Your task to perform on an android device: Find coffee shops on Maps Image 0: 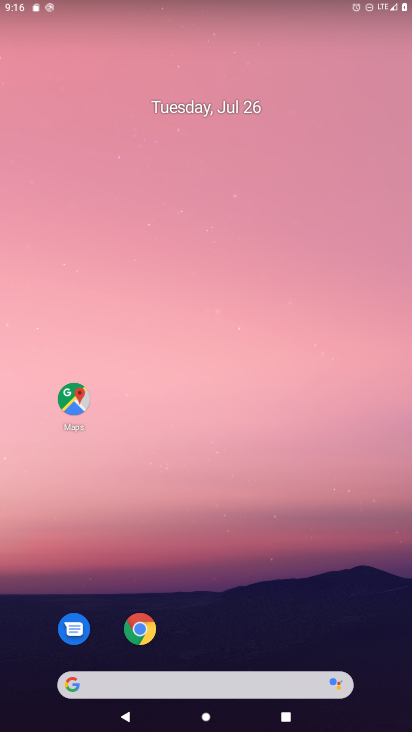
Step 0: drag from (216, 647) to (190, 162)
Your task to perform on an android device: Find coffee shops on Maps Image 1: 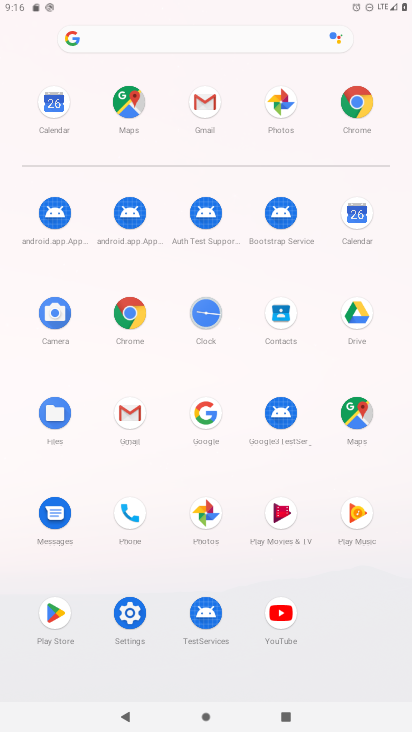
Step 1: click (355, 413)
Your task to perform on an android device: Find coffee shops on Maps Image 2: 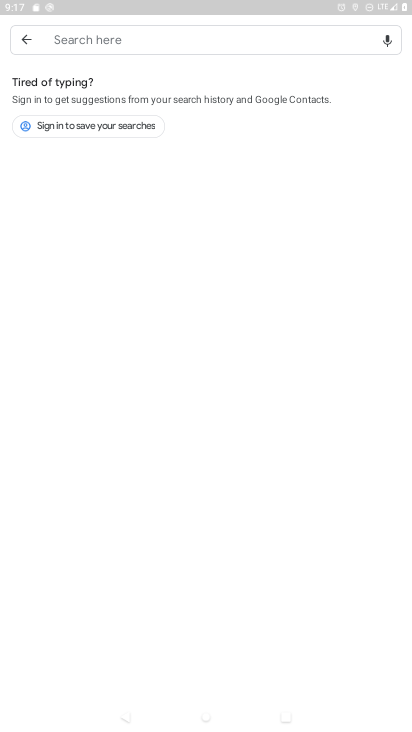
Step 2: click (75, 44)
Your task to perform on an android device: Find coffee shops on Maps Image 3: 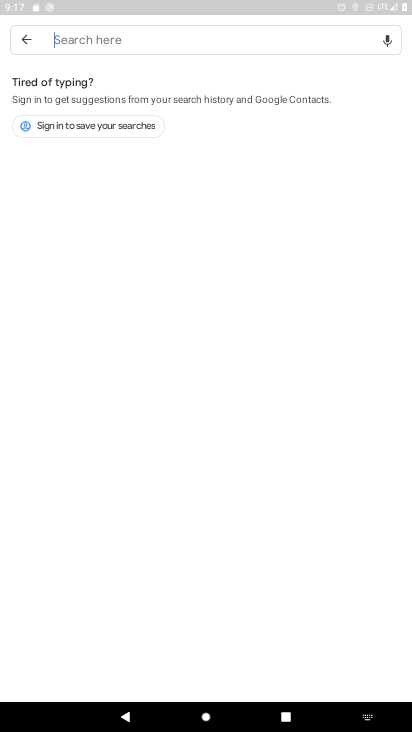
Step 3: type "coffee shops"
Your task to perform on an android device: Find coffee shops on Maps Image 4: 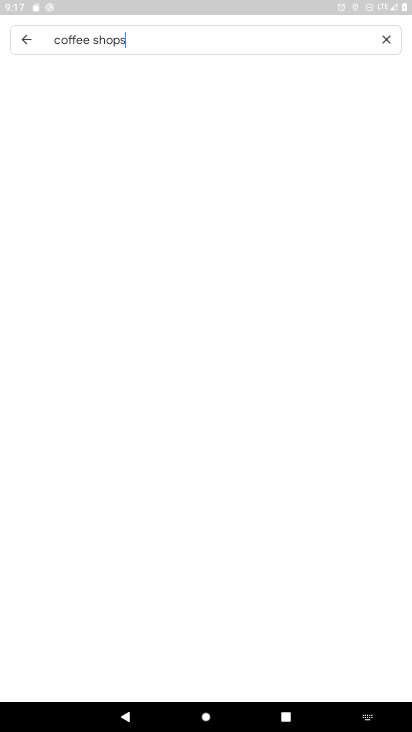
Step 4: type ""
Your task to perform on an android device: Find coffee shops on Maps Image 5: 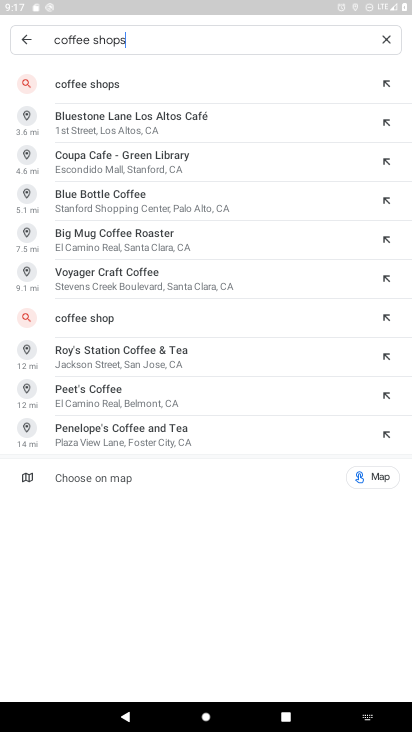
Step 5: click (51, 78)
Your task to perform on an android device: Find coffee shops on Maps Image 6: 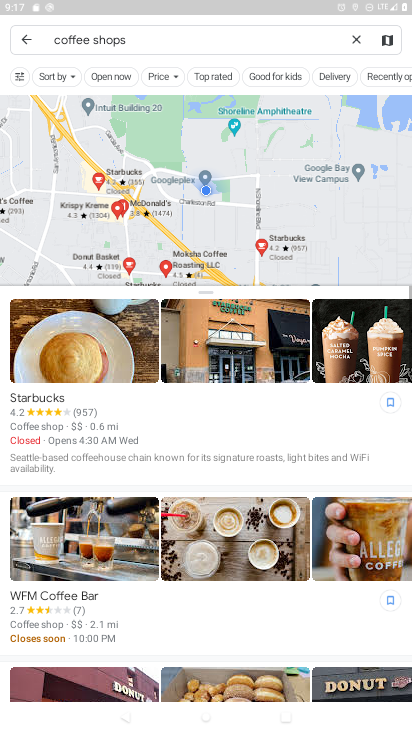
Step 6: task complete